Your task to perform on an android device: turn on showing notifications on the lock screen Image 0: 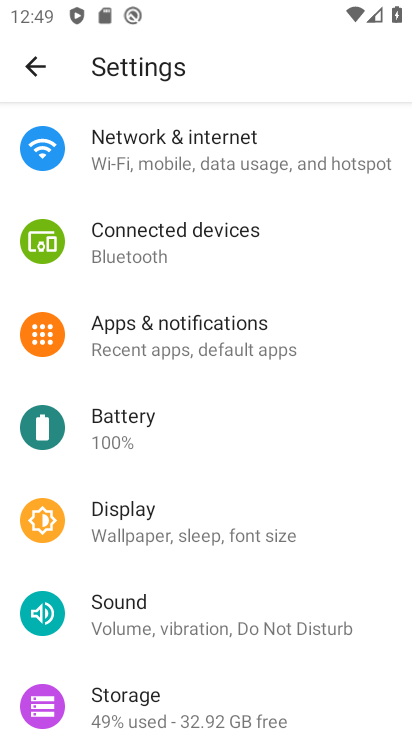
Step 0: click (231, 335)
Your task to perform on an android device: turn on showing notifications on the lock screen Image 1: 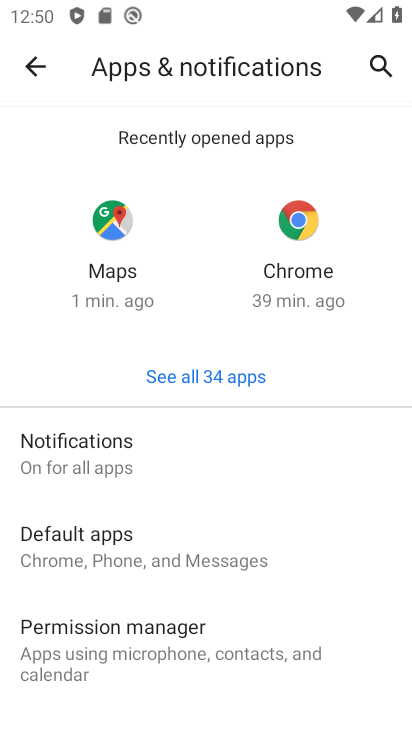
Step 1: drag from (251, 605) to (250, 273)
Your task to perform on an android device: turn on showing notifications on the lock screen Image 2: 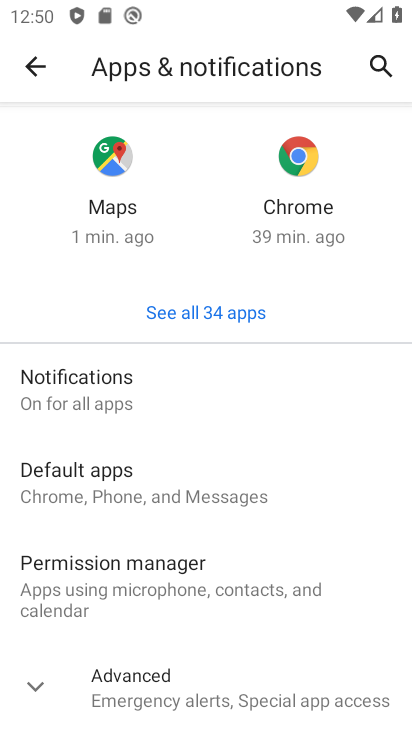
Step 2: click (110, 374)
Your task to perform on an android device: turn on showing notifications on the lock screen Image 3: 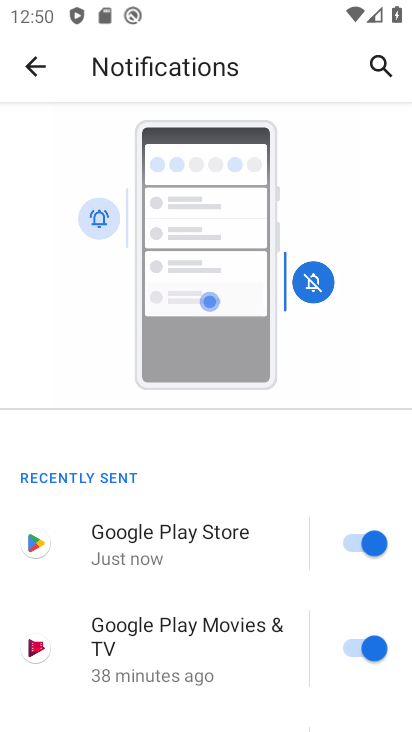
Step 3: drag from (194, 579) to (226, 236)
Your task to perform on an android device: turn on showing notifications on the lock screen Image 4: 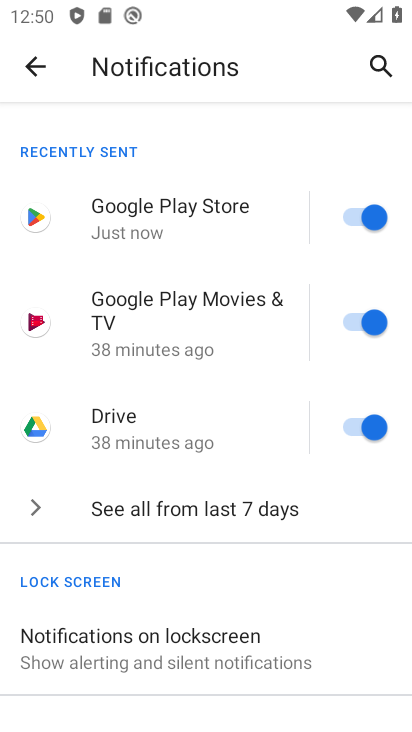
Step 4: click (170, 658)
Your task to perform on an android device: turn on showing notifications on the lock screen Image 5: 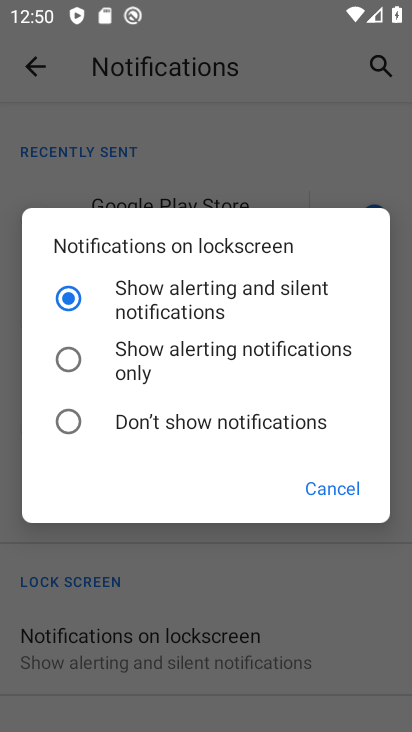
Step 5: click (348, 489)
Your task to perform on an android device: turn on showing notifications on the lock screen Image 6: 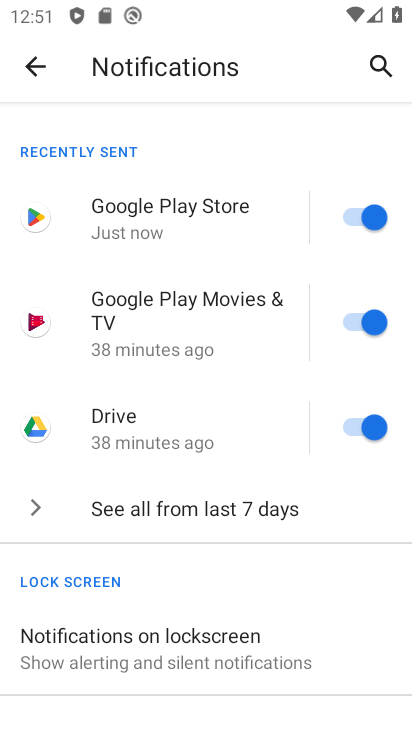
Step 6: task complete